Your task to perform on an android device: empty trash in google photos Image 0: 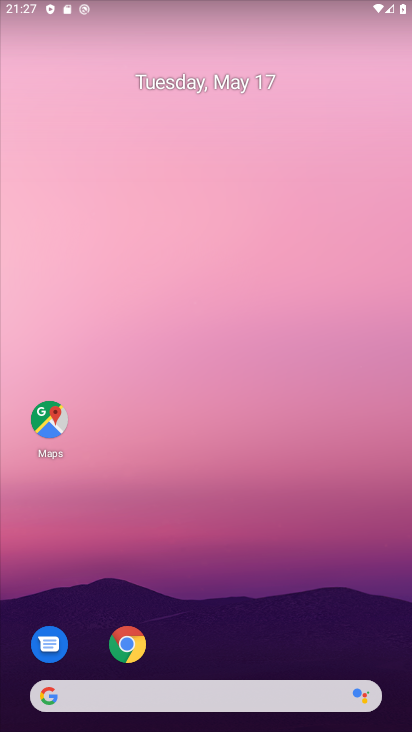
Step 0: drag from (207, 658) to (290, 183)
Your task to perform on an android device: empty trash in google photos Image 1: 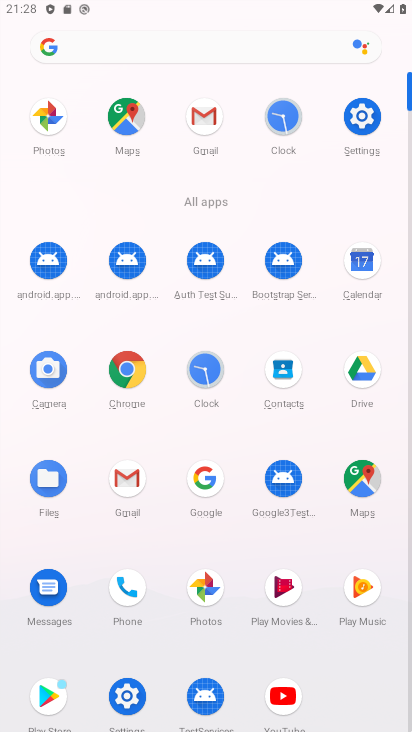
Step 1: click (120, 484)
Your task to perform on an android device: empty trash in google photos Image 2: 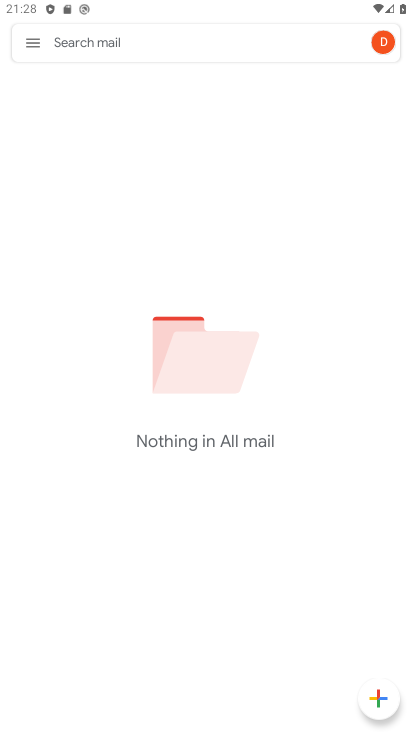
Step 2: click (36, 38)
Your task to perform on an android device: empty trash in google photos Image 3: 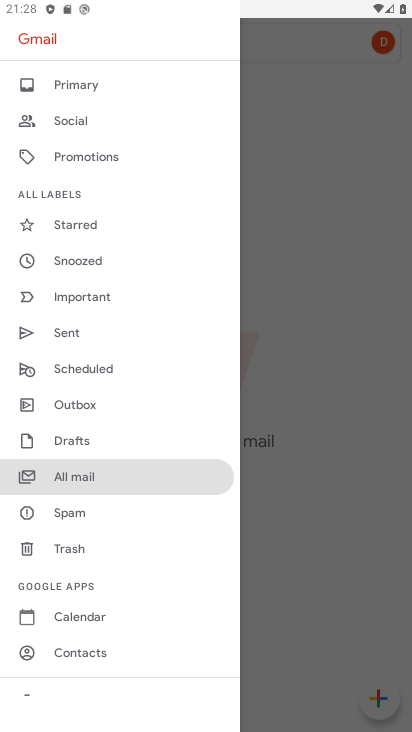
Step 3: click (116, 541)
Your task to perform on an android device: empty trash in google photos Image 4: 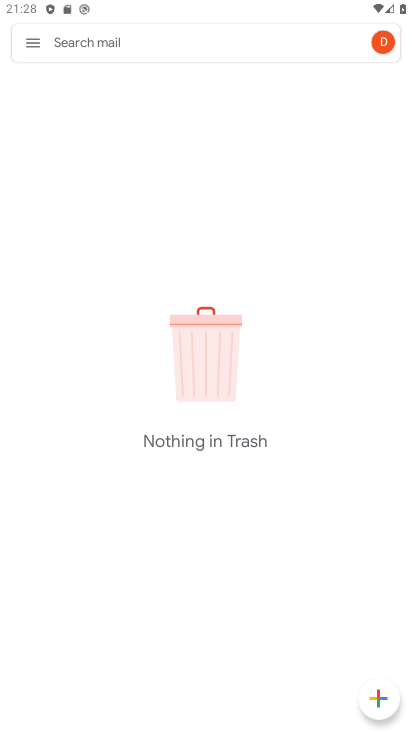
Step 4: task complete